Your task to perform on an android device: Toggle the flashlight Image 0: 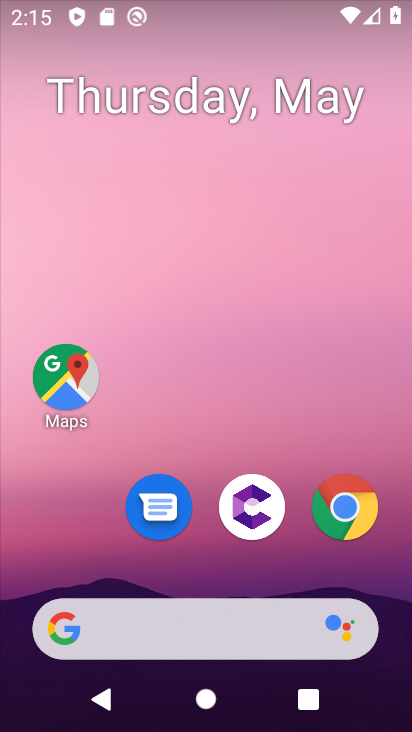
Step 0: press home button
Your task to perform on an android device: Toggle the flashlight Image 1: 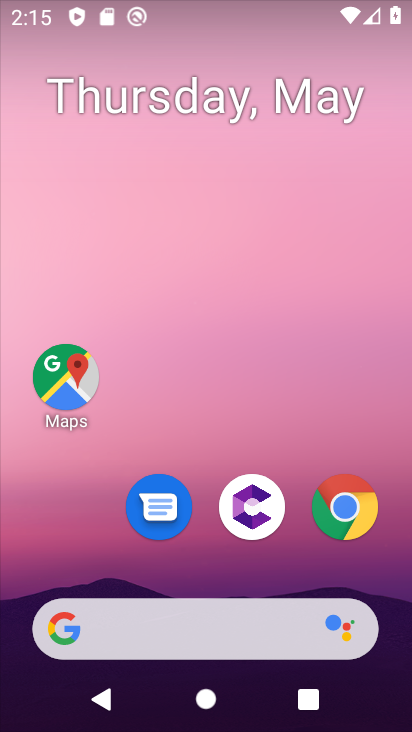
Step 1: task complete